Your task to perform on an android device: change the upload size in google photos Image 0: 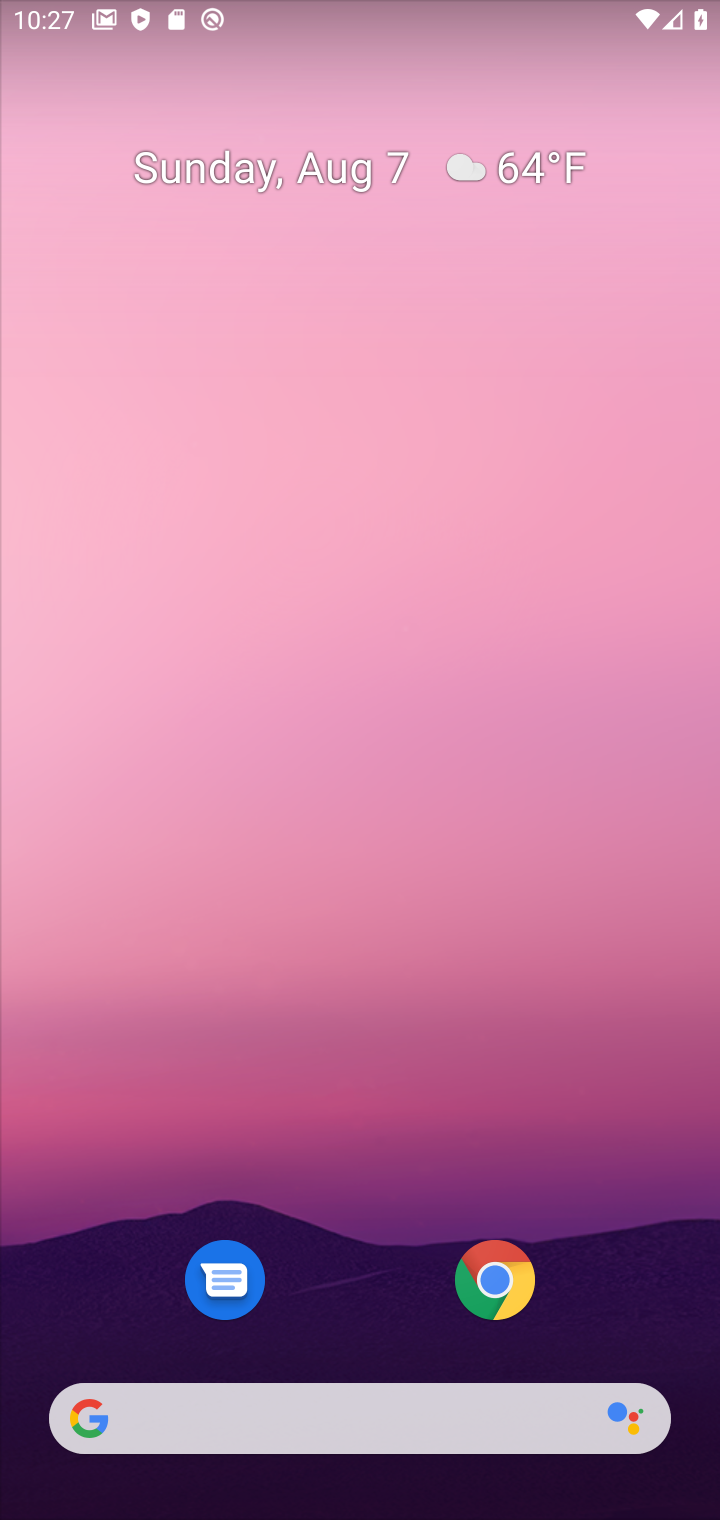
Step 0: drag from (345, 1077) to (513, 161)
Your task to perform on an android device: change the upload size in google photos Image 1: 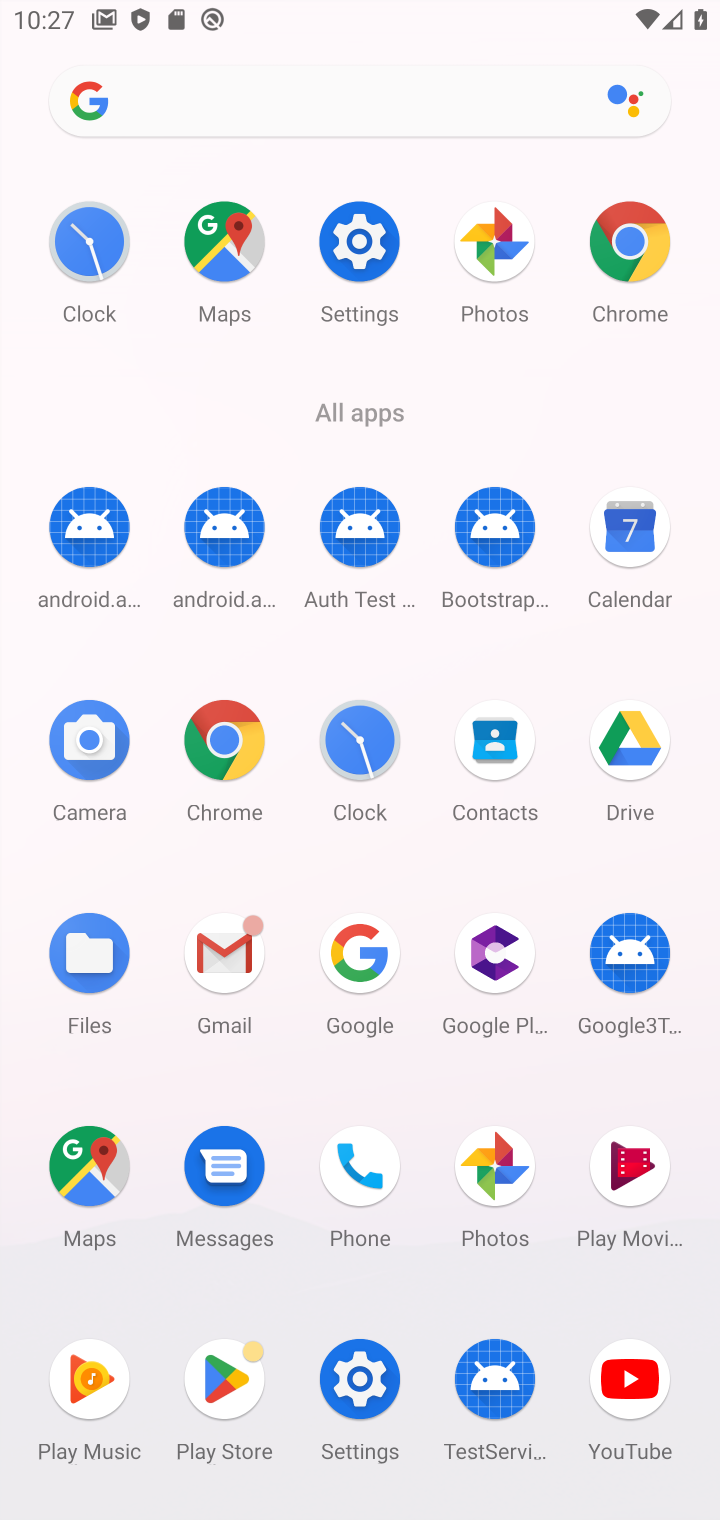
Step 1: click (522, 244)
Your task to perform on an android device: change the upload size in google photos Image 2: 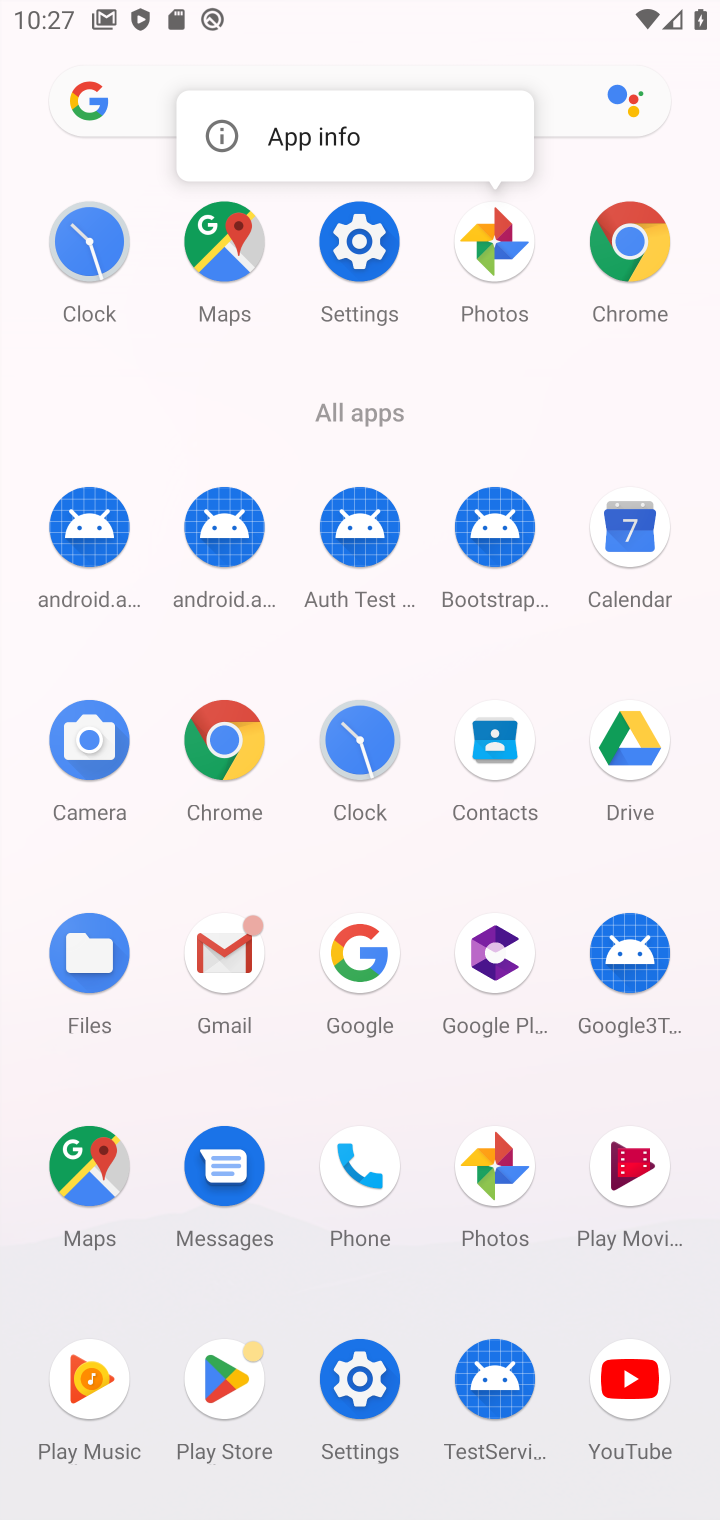
Step 2: click (519, 229)
Your task to perform on an android device: change the upload size in google photos Image 3: 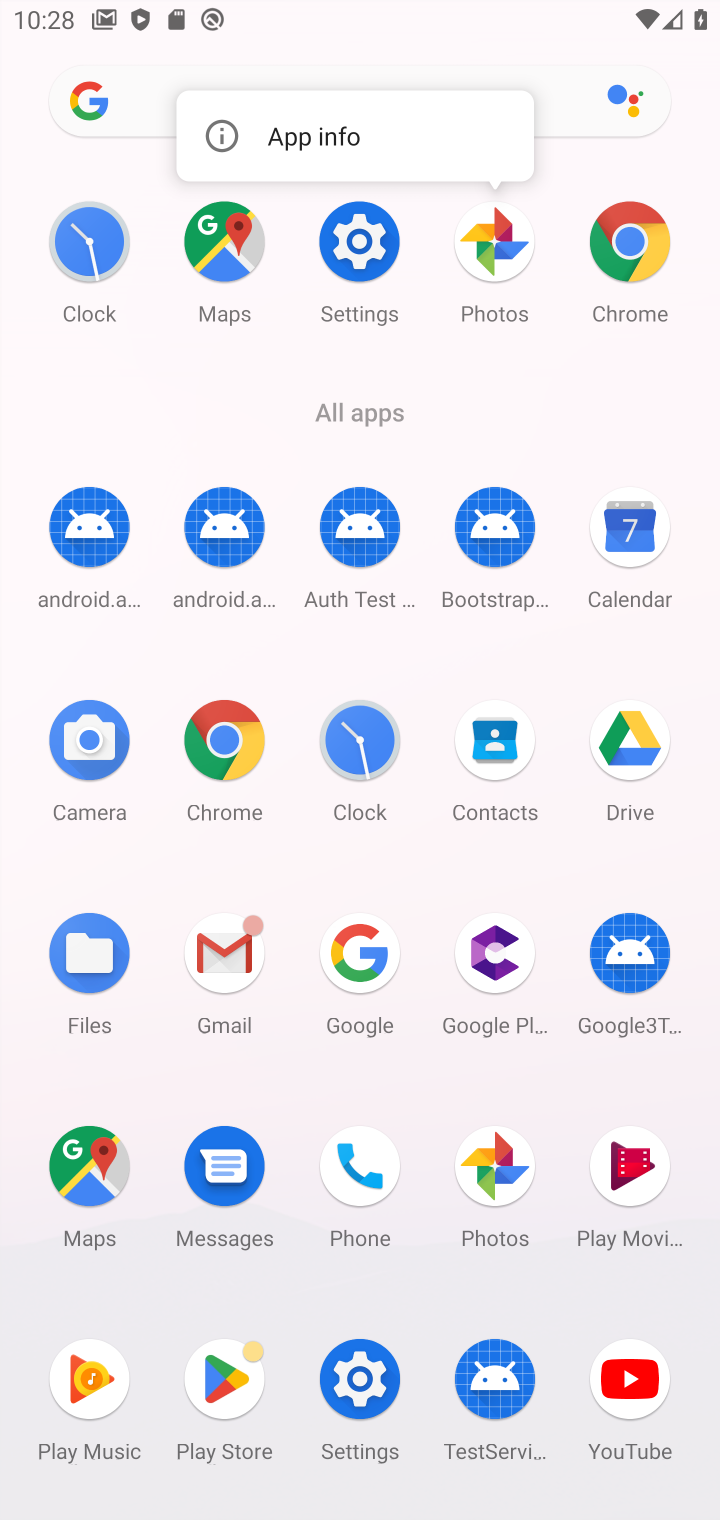
Step 3: click (499, 1172)
Your task to perform on an android device: change the upload size in google photos Image 4: 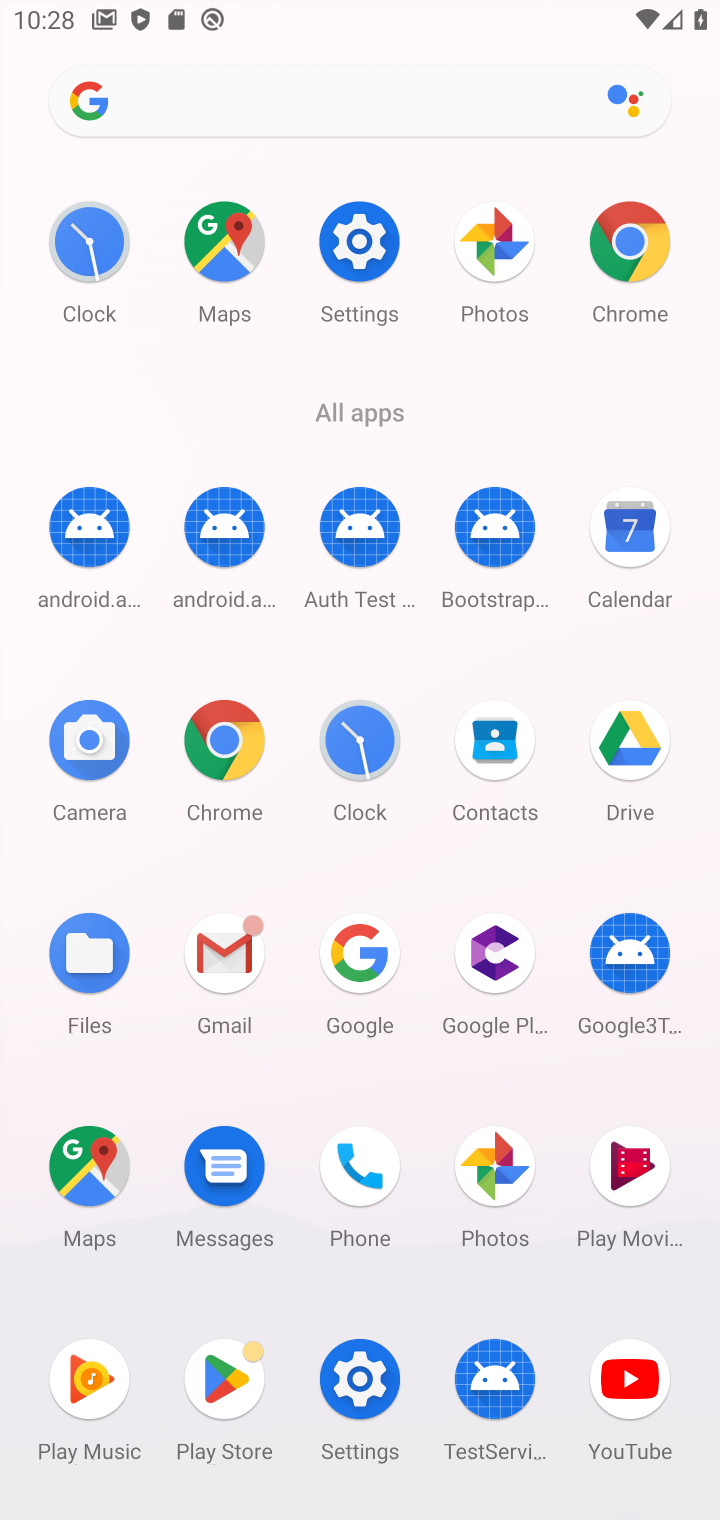
Step 4: click (499, 1166)
Your task to perform on an android device: change the upload size in google photos Image 5: 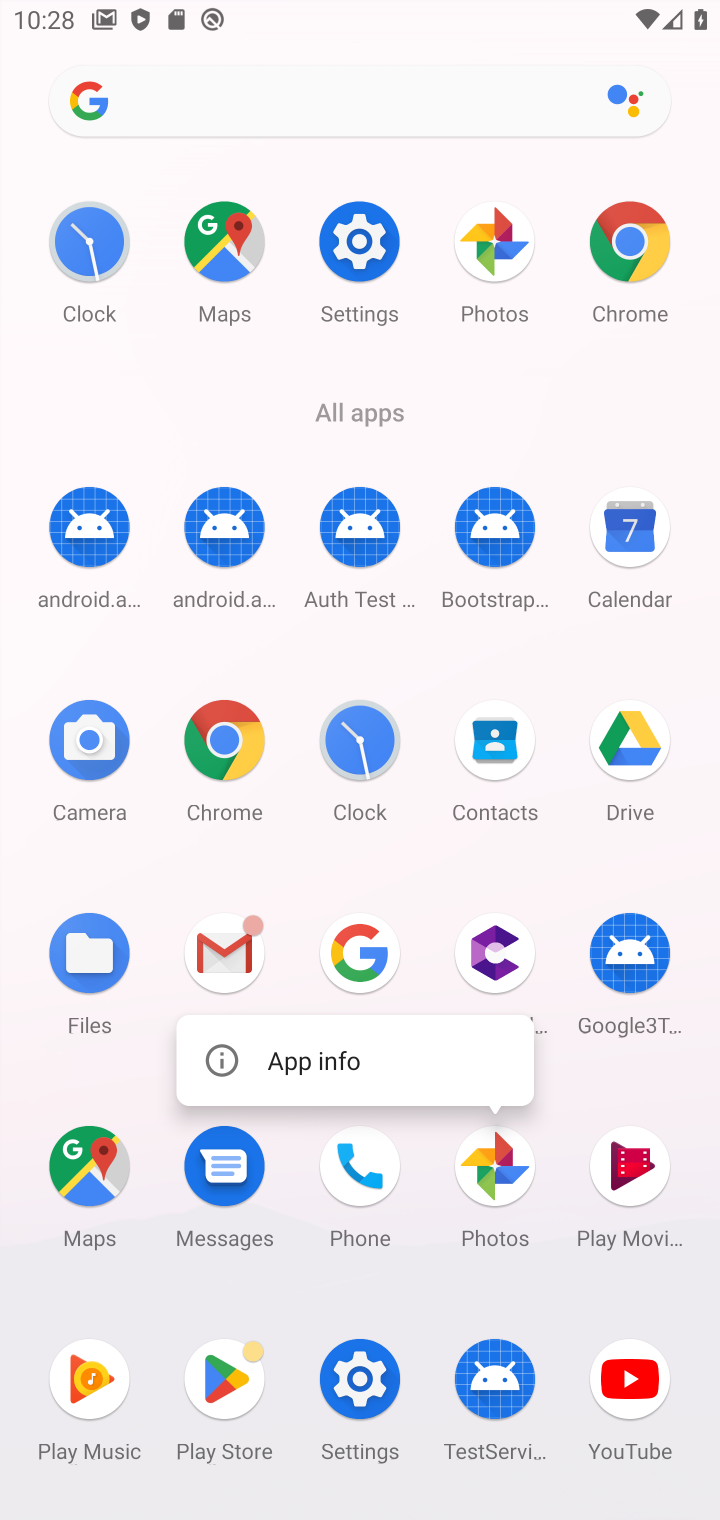
Step 5: click (496, 1168)
Your task to perform on an android device: change the upload size in google photos Image 6: 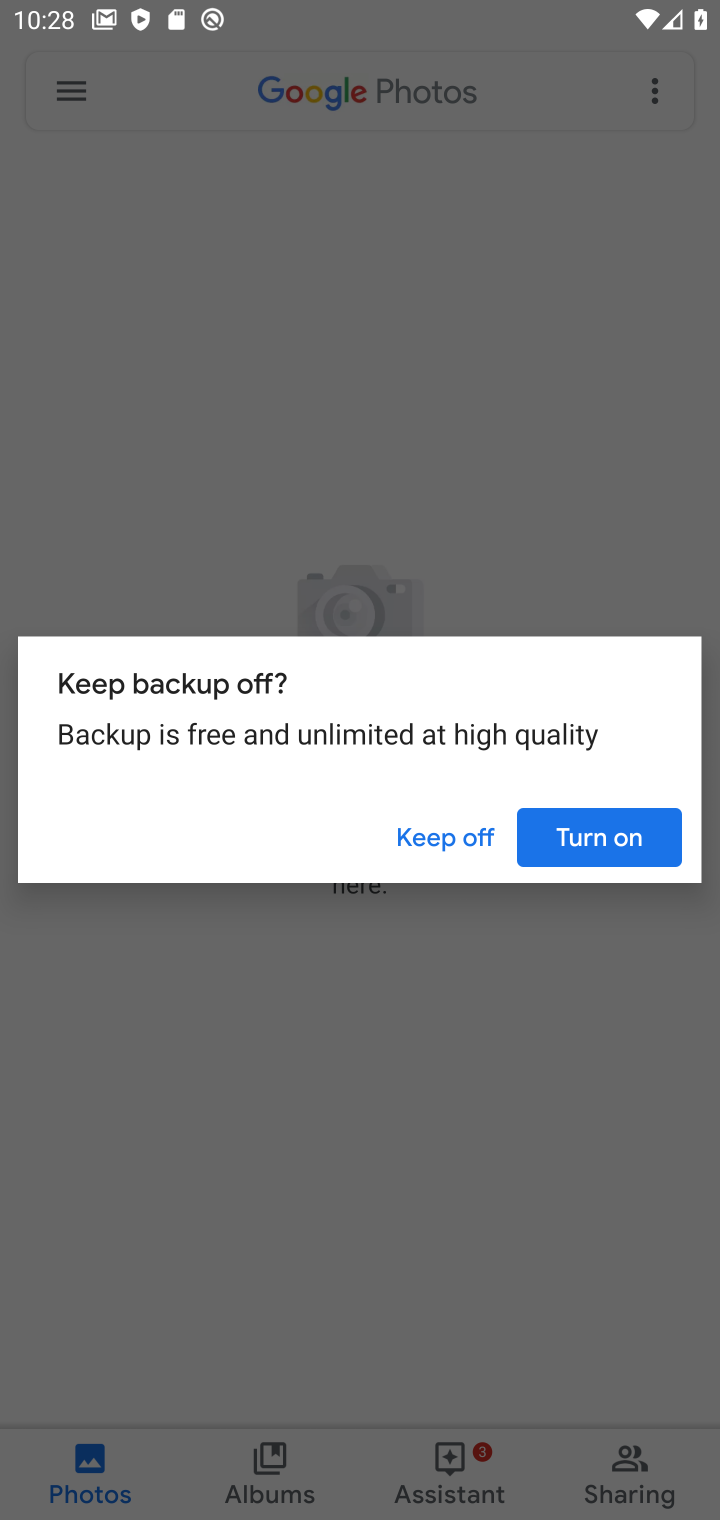
Step 6: click (453, 822)
Your task to perform on an android device: change the upload size in google photos Image 7: 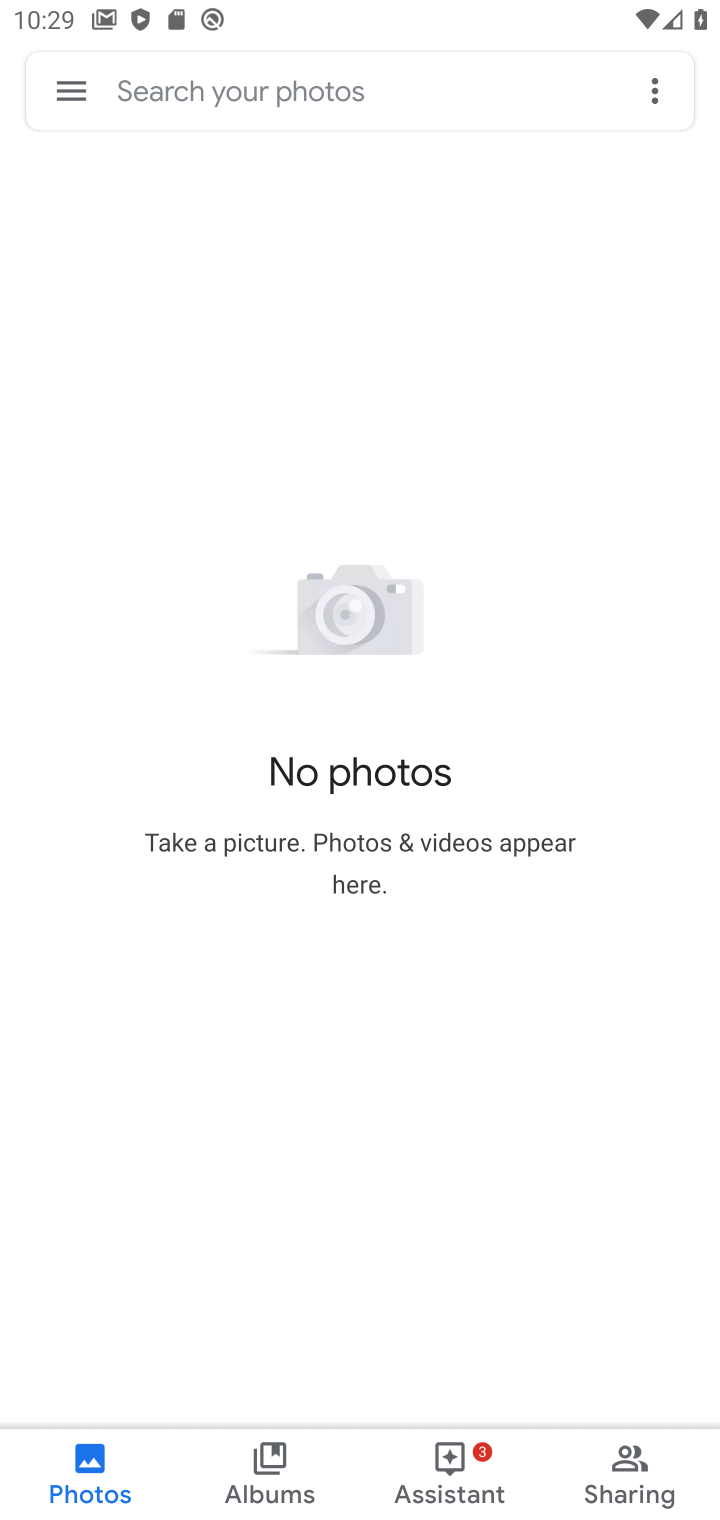
Step 7: click (75, 108)
Your task to perform on an android device: change the upload size in google photos Image 8: 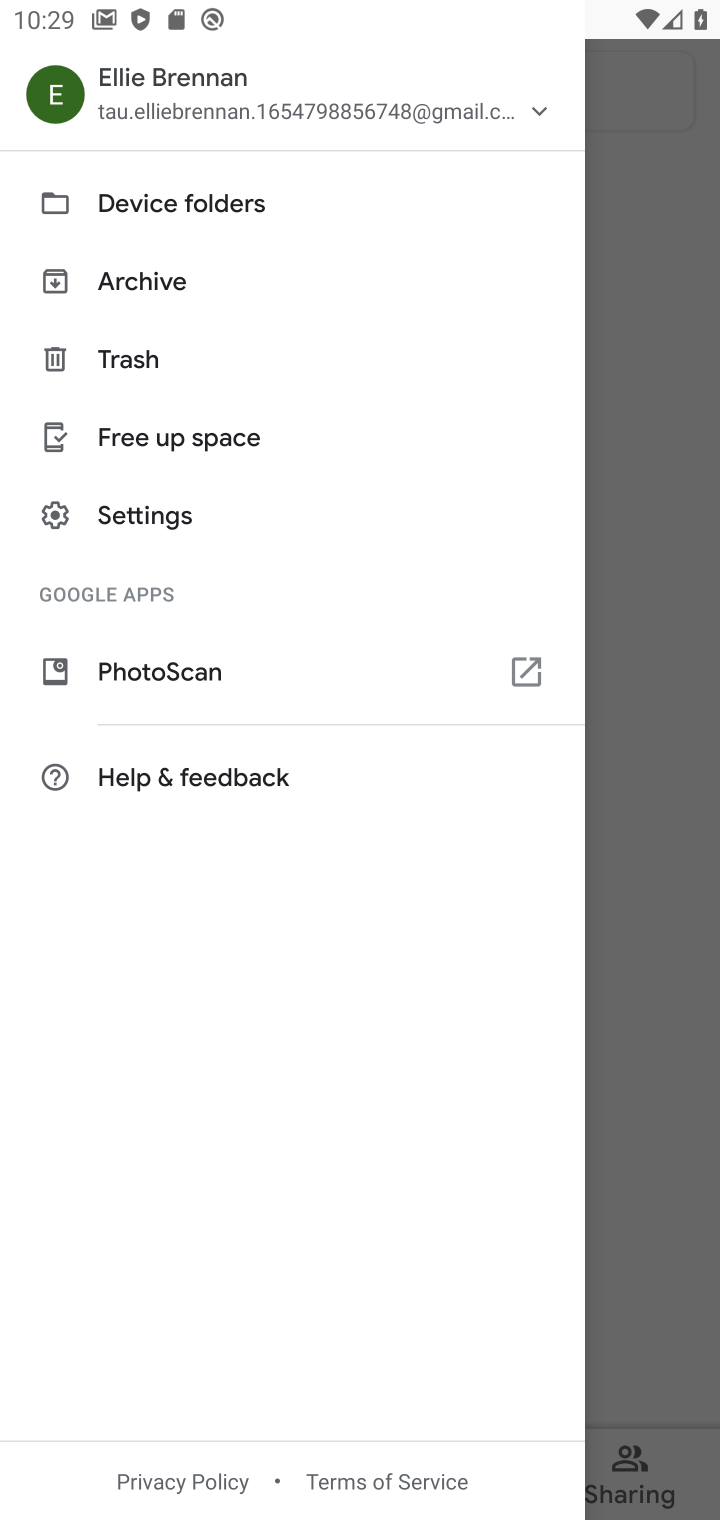
Step 8: click (157, 526)
Your task to perform on an android device: change the upload size in google photos Image 9: 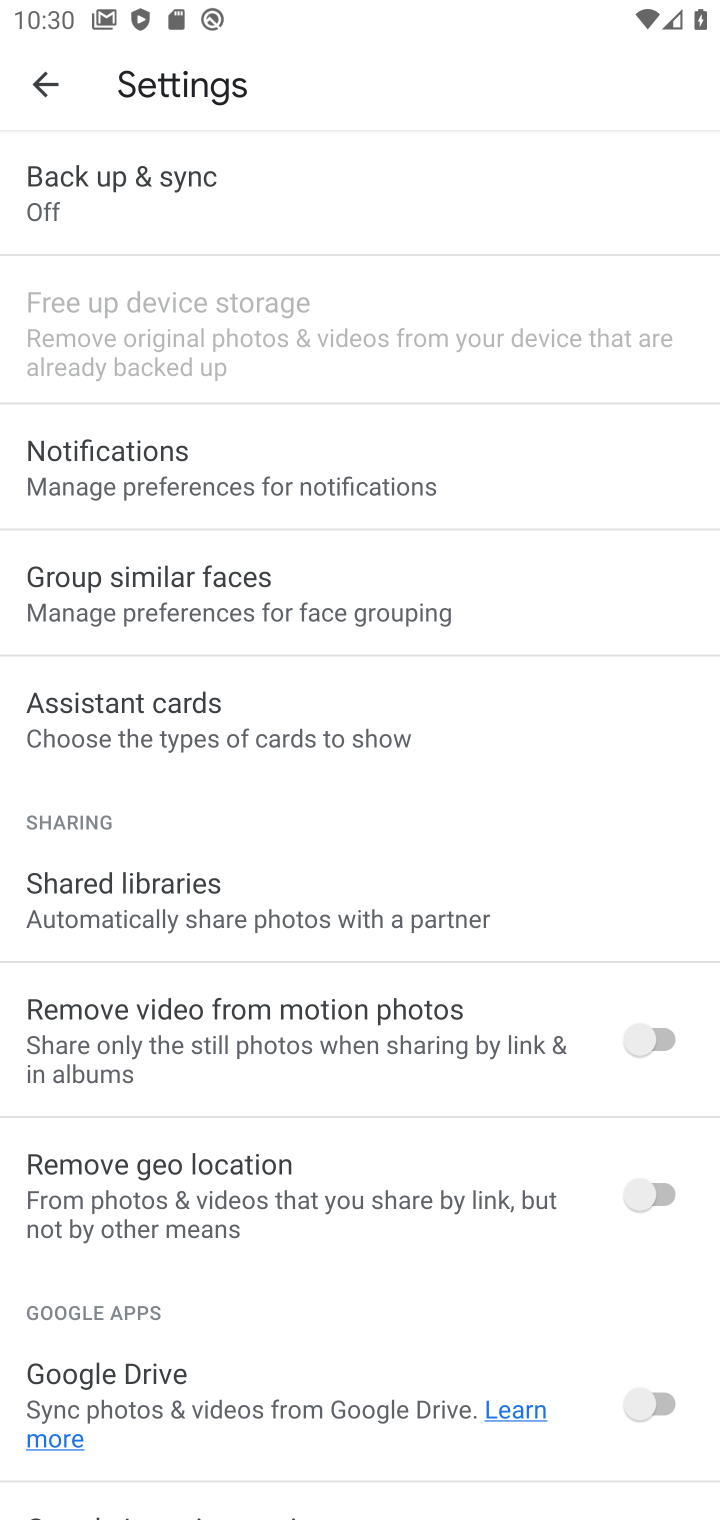
Step 9: drag from (195, 315) to (171, 1509)
Your task to perform on an android device: change the upload size in google photos Image 10: 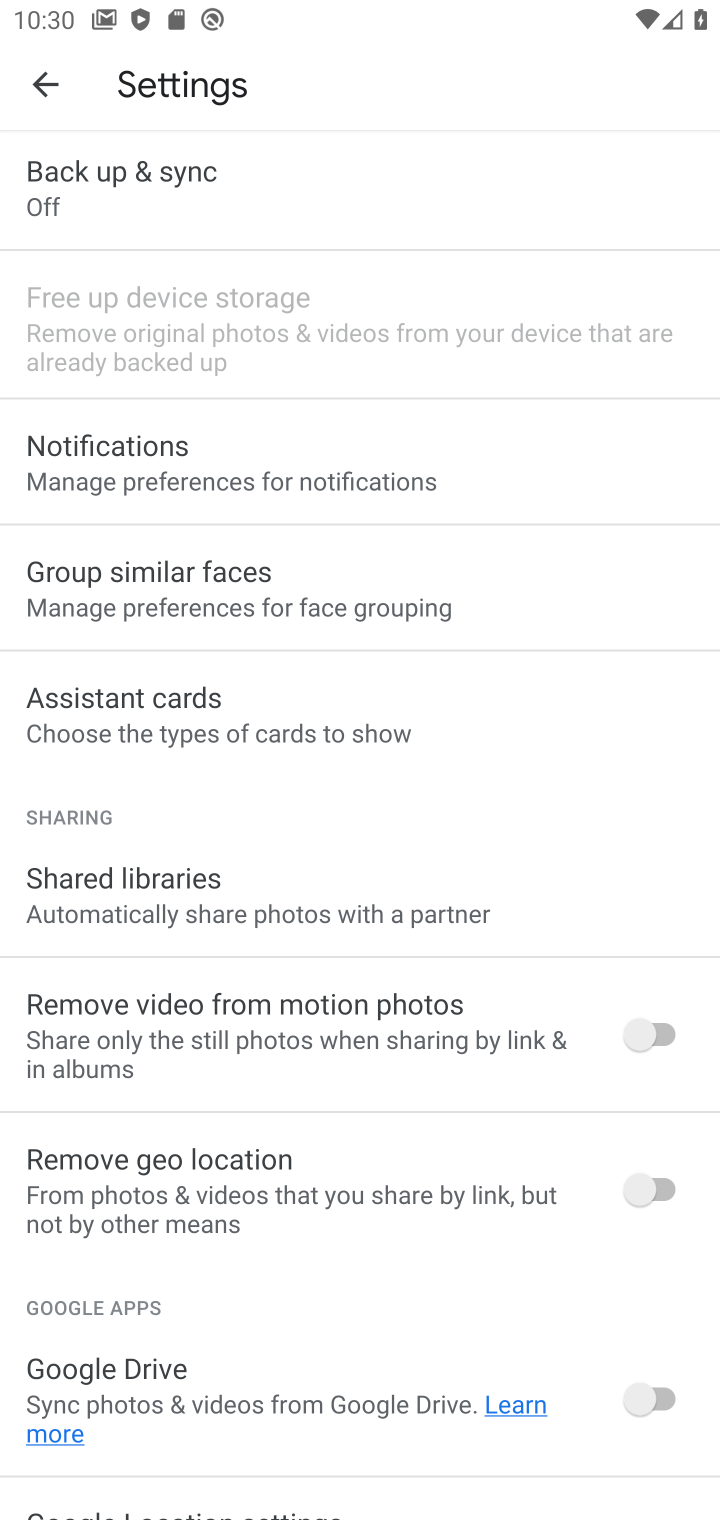
Step 10: click (248, 187)
Your task to perform on an android device: change the upload size in google photos Image 11: 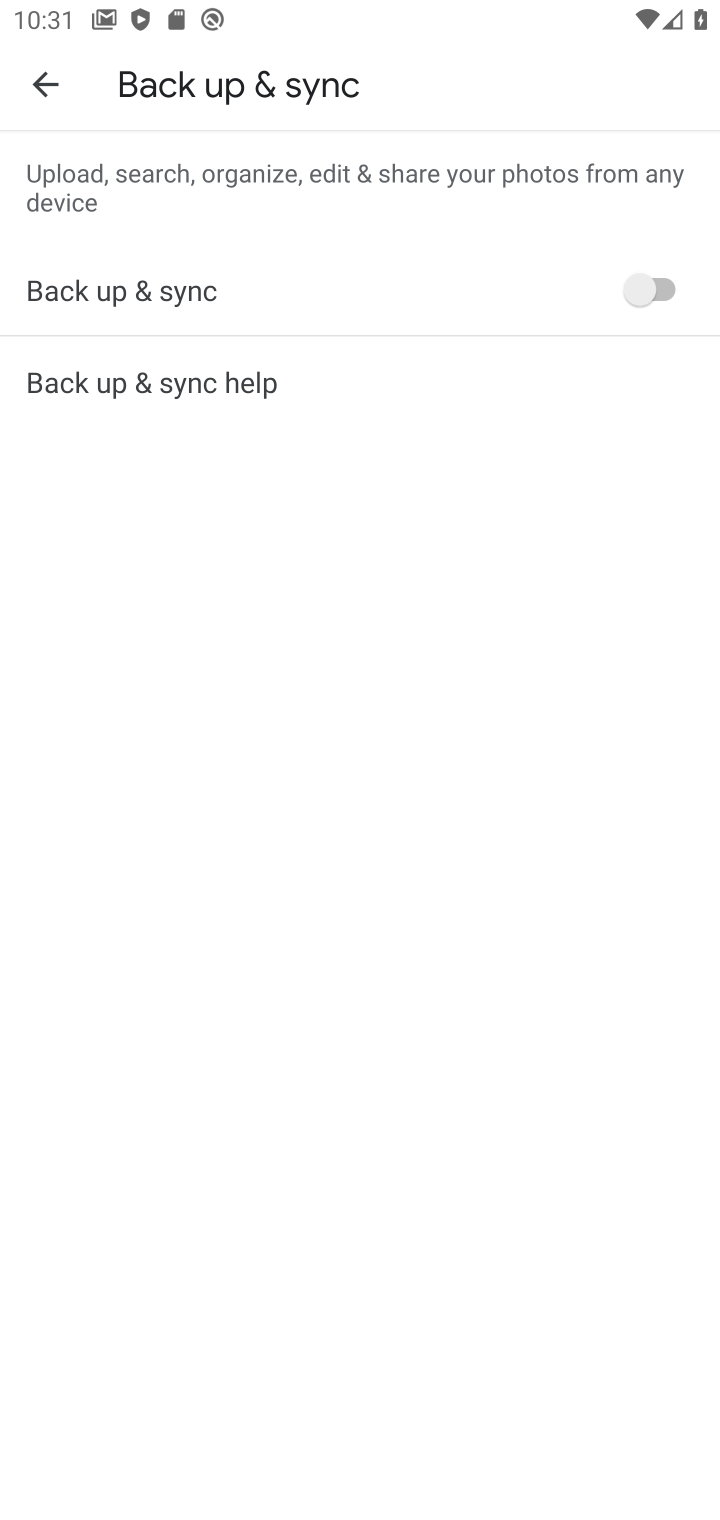
Step 11: click (41, 75)
Your task to perform on an android device: change the upload size in google photos Image 12: 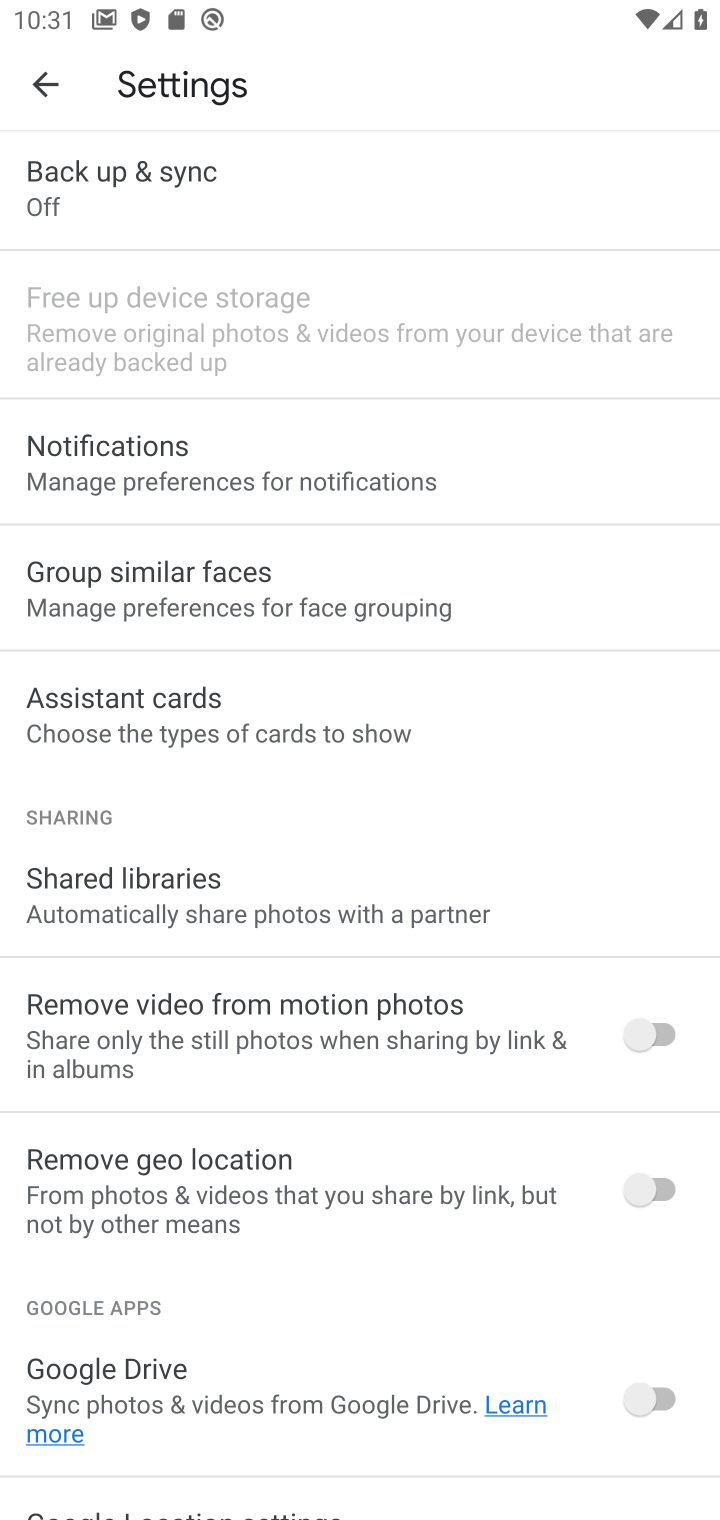
Step 12: task complete